Your task to perform on an android device: Open settings on Google Maps Image 0: 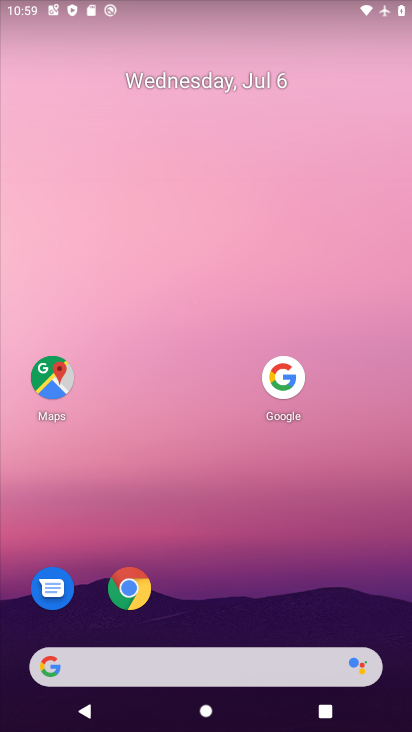
Step 0: click (51, 378)
Your task to perform on an android device: Open settings on Google Maps Image 1: 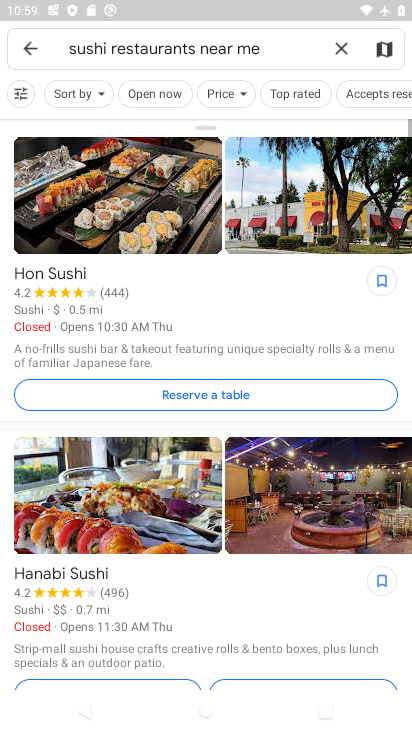
Step 1: click (34, 44)
Your task to perform on an android device: Open settings on Google Maps Image 2: 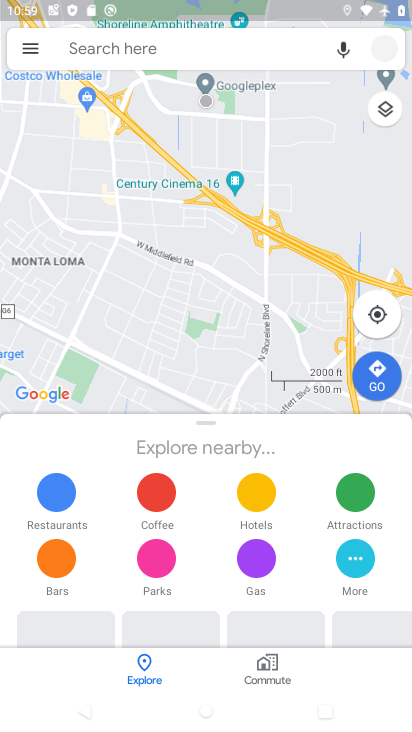
Step 2: click (36, 50)
Your task to perform on an android device: Open settings on Google Maps Image 3: 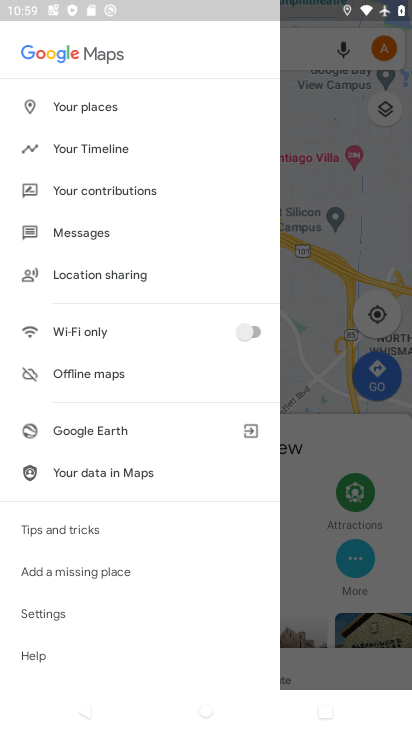
Step 3: click (52, 610)
Your task to perform on an android device: Open settings on Google Maps Image 4: 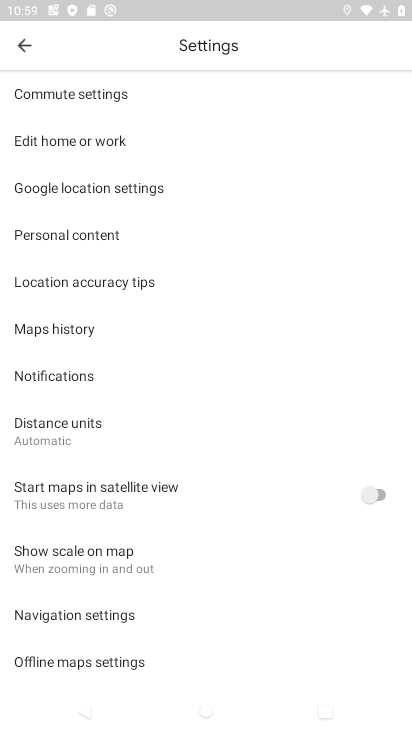
Step 4: task complete